Your task to perform on an android device: Open internet settings Image 0: 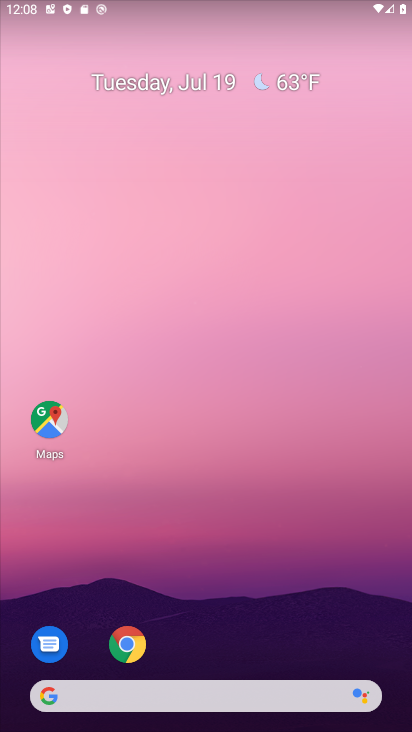
Step 0: drag from (219, 722) to (283, 228)
Your task to perform on an android device: Open internet settings Image 1: 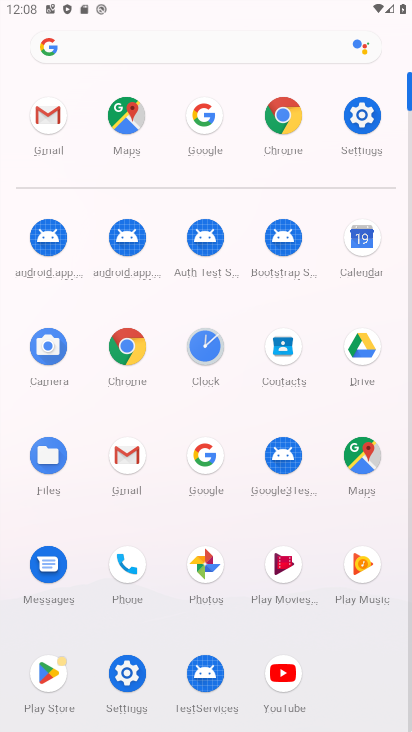
Step 1: click (358, 108)
Your task to perform on an android device: Open internet settings Image 2: 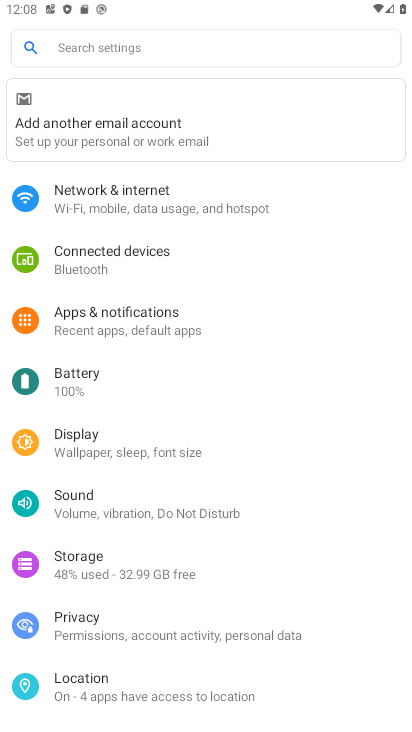
Step 2: click (140, 189)
Your task to perform on an android device: Open internet settings Image 3: 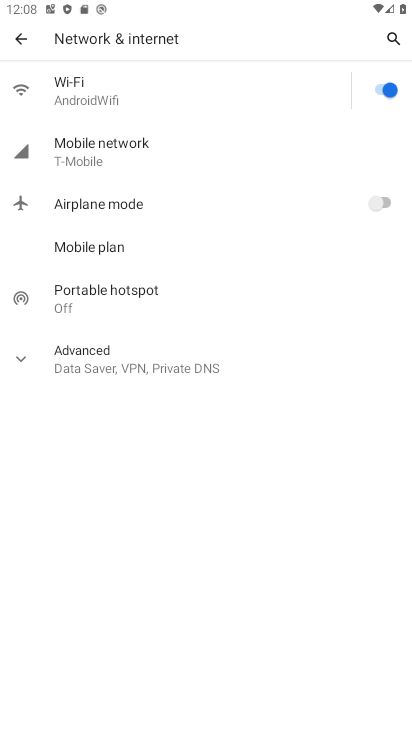
Step 3: task complete